Your task to perform on an android device: allow notifications from all sites in the chrome app Image 0: 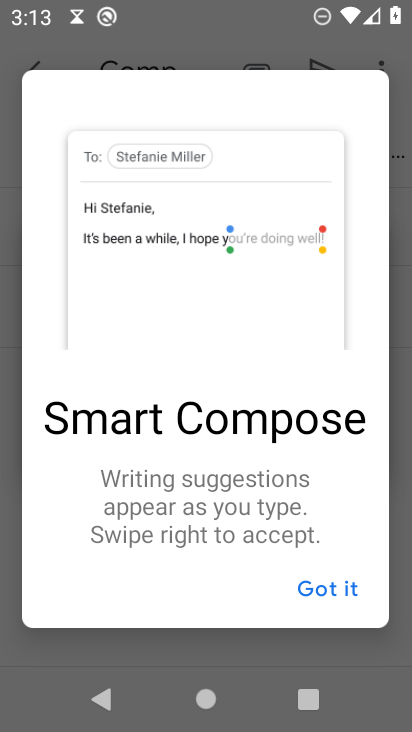
Step 0: press home button
Your task to perform on an android device: allow notifications from all sites in the chrome app Image 1: 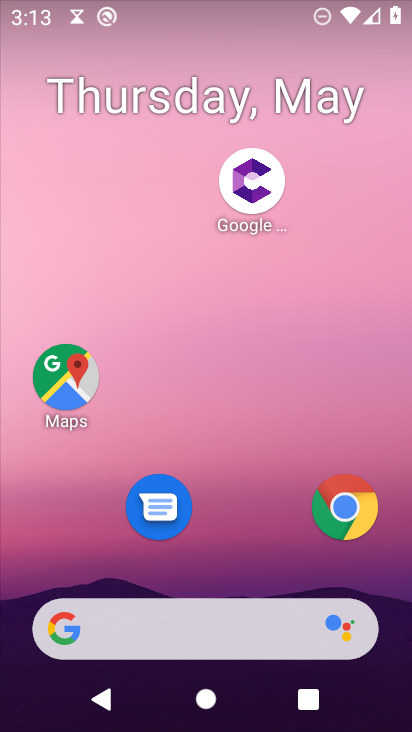
Step 1: drag from (247, 519) to (240, 278)
Your task to perform on an android device: allow notifications from all sites in the chrome app Image 2: 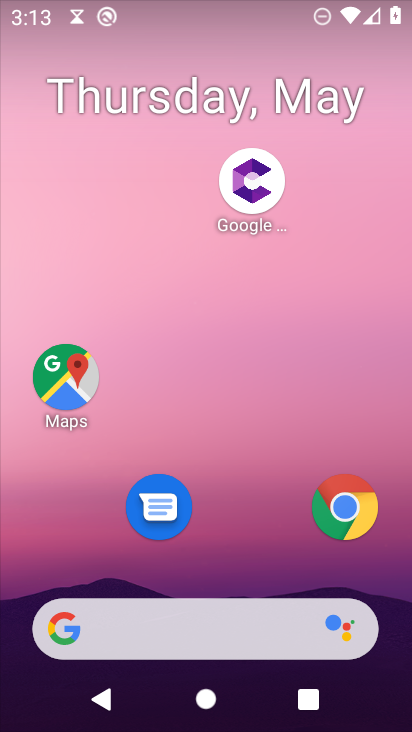
Step 2: drag from (259, 524) to (251, 71)
Your task to perform on an android device: allow notifications from all sites in the chrome app Image 3: 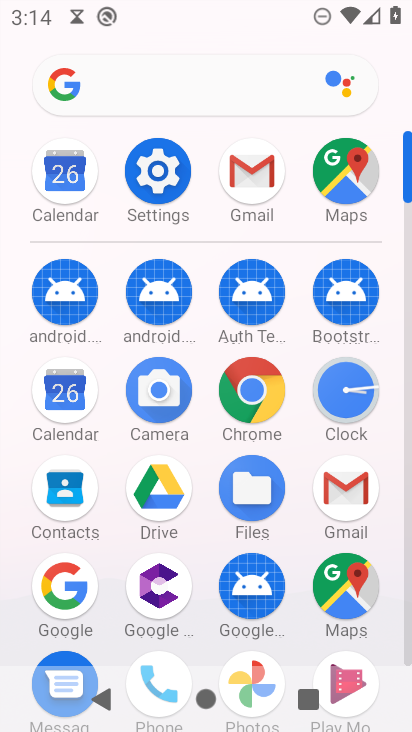
Step 3: click (247, 382)
Your task to perform on an android device: allow notifications from all sites in the chrome app Image 4: 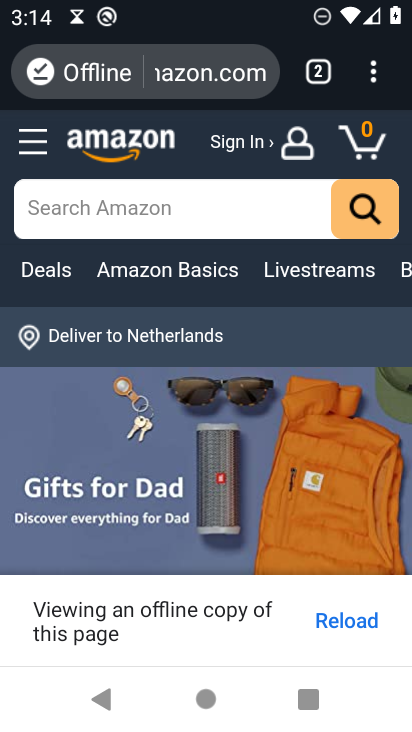
Step 4: click (375, 70)
Your task to perform on an android device: allow notifications from all sites in the chrome app Image 5: 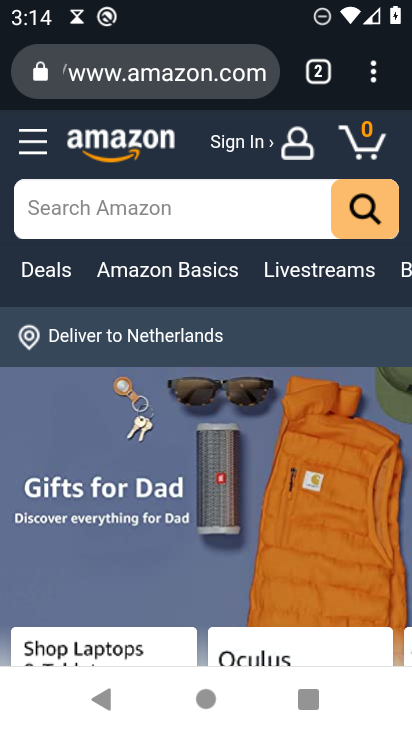
Step 5: click (369, 61)
Your task to perform on an android device: allow notifications from all sites in the chrome app Image 6: 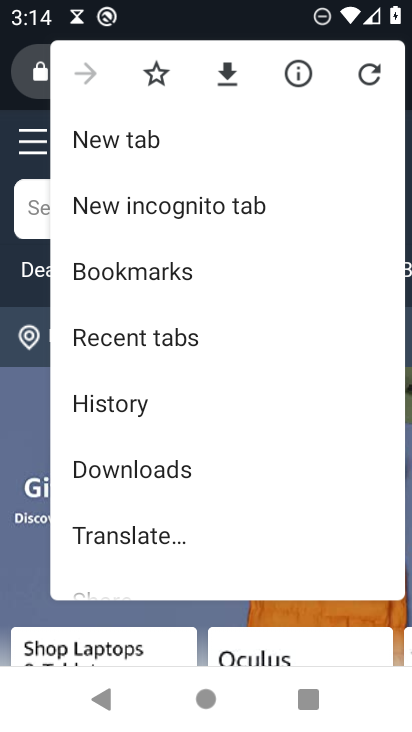
Step 6: drag from (275, 552) to (236, 115)
Your task to perform on an android device: allow notifications from all sites in the chrome app Image 7: 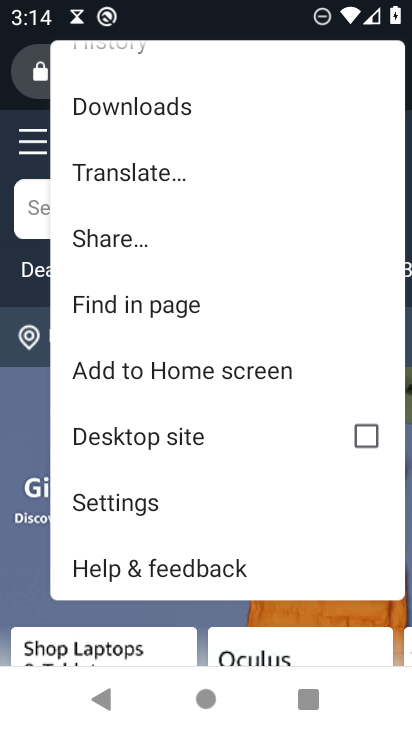
Step 7: click (153, 508)
Your task to perform on an android device: allow notifications from all sites in the chrome app Image 8: 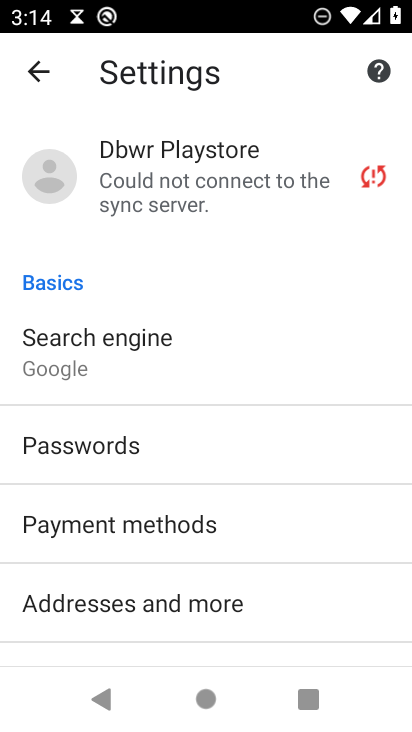
Step 8: drag from (315, 607) to (287, 216)
Your task to perform on an android device: allow notifications from all sites in the chrome app Image 9: 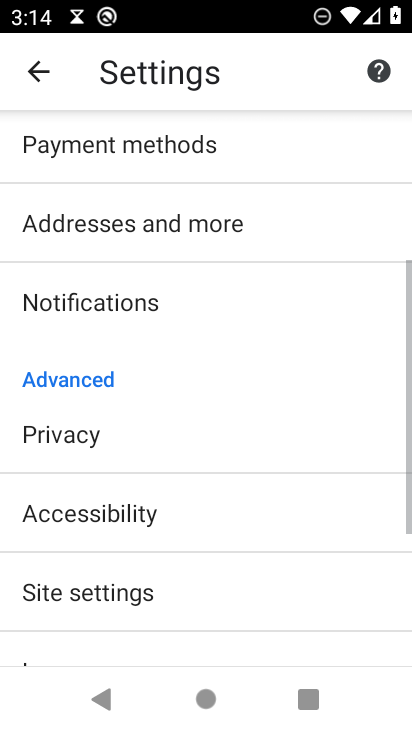
Step 9: click (89, 300)
Your task to perform on an android device: allow notifications from all sites in the chrome app Image 10: 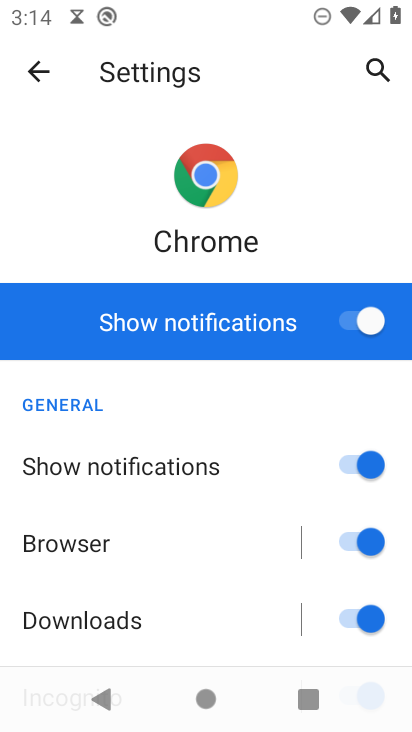
Step 10: task complete